Your task to perform on an android device: open app "Lyft - Rideshare, Bikes, Scooters & Transit" (install if not already installed), go to login, and select forgot password Image 0: 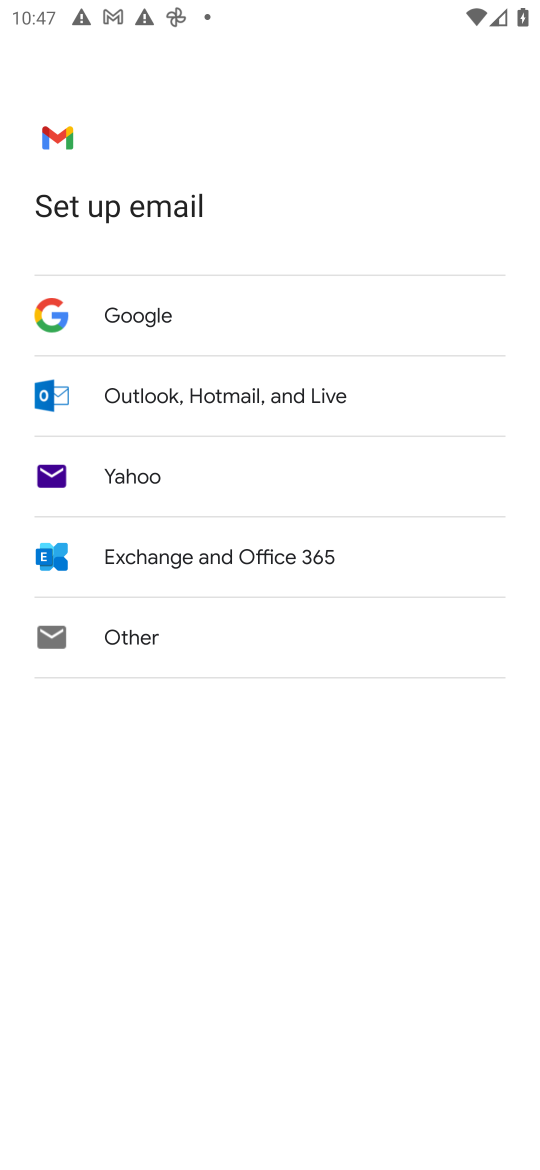
Step 0: press home button
Your task to perform on an android device: open app "Lyft - Rideshare, Bikes, Scooters & Transit" (install if not already installed), go to login, and select forgot password Image 1: 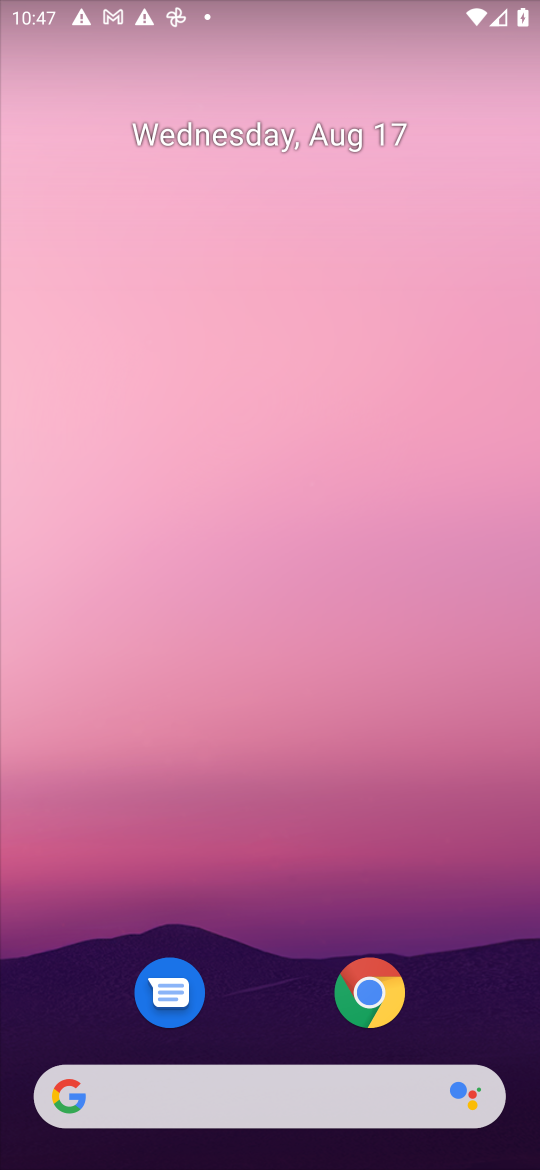
Step 1: drag from (463, 984) to (229, 75)
Your task to perform on an android device: open app "Lyft - Rideshare, Bikes, Scooters & Transit" (install if not already installed), go to login, and select forgot password Image 2: 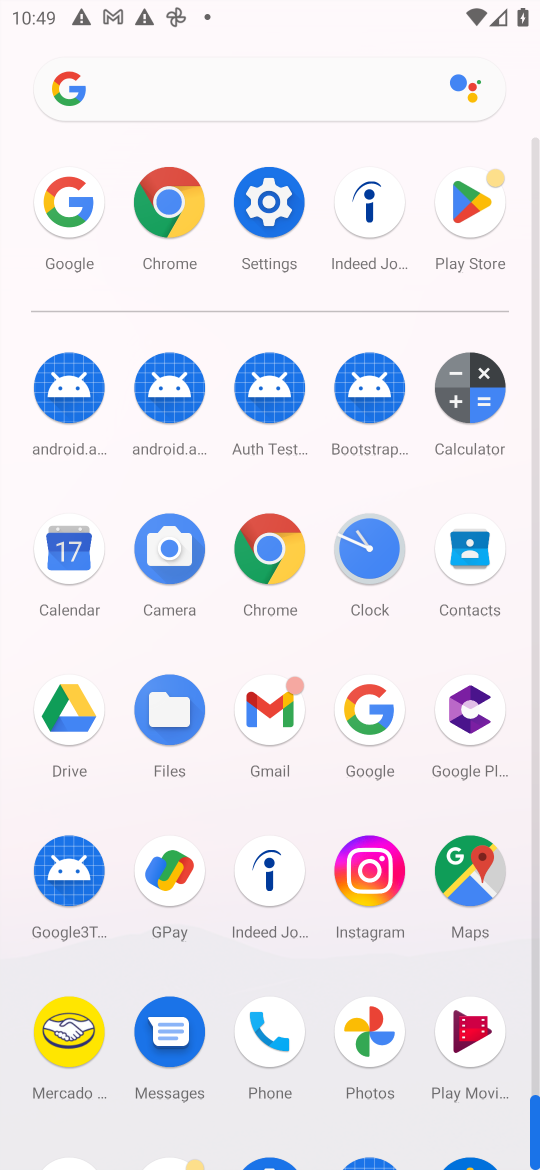
Step 2: click (474, 223)
Your task to perform on an android device: open app "Lyft - Rideshare, Bikes, Scooters & Transit" (install if not already installed), go to login, and select forgot password Image 3: 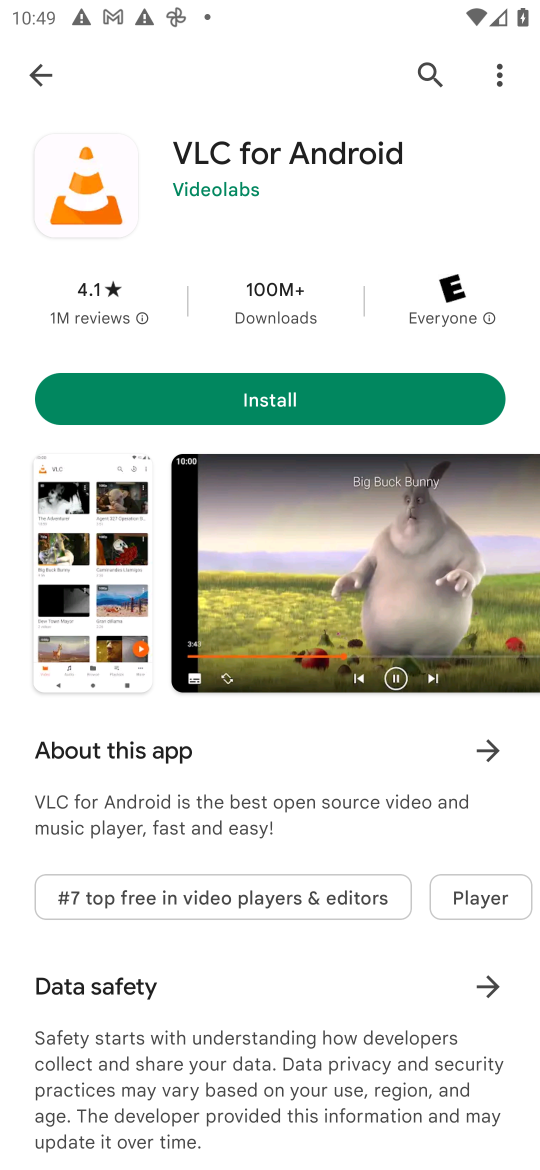
Step 3: press back button
Your task to perform on an android device: open app "Lyft - Rideshare, Bikes, Scooters & Transit" (install if not already installed), go to login, and select forgot password Image 4: 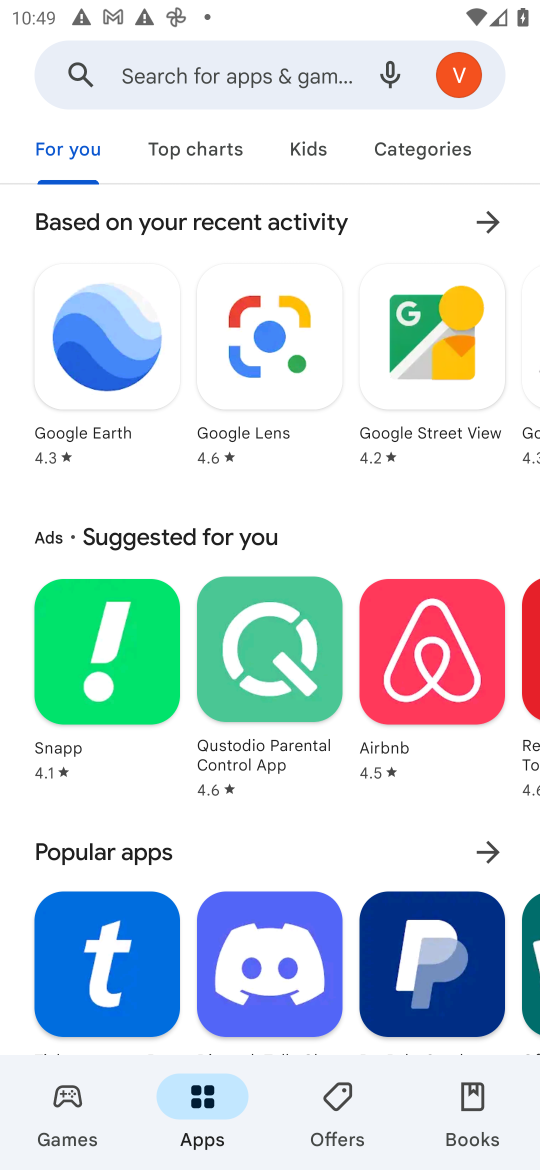
Step 4: click (189, 81)
Your task to perform on an android device: open app "Lyft - Rideshare, Bikes, Scooters & Transit" (install if not already installed), go to login, and select forgot password Image 5: 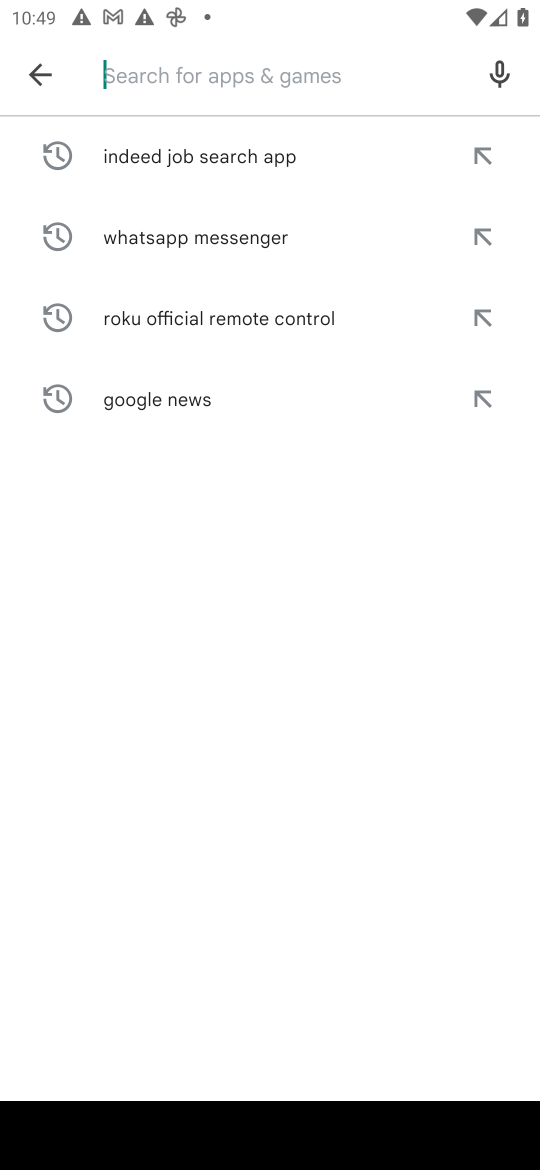
Step 5: type "Lyft - Rideshare, Bikes, Scooters & Transit"
Your task to perform on an android device: open app "Lyft - Rideshare, Bikes, Scooters & Transit" (install if not already installed), go to login, and select forgot password Image 6: 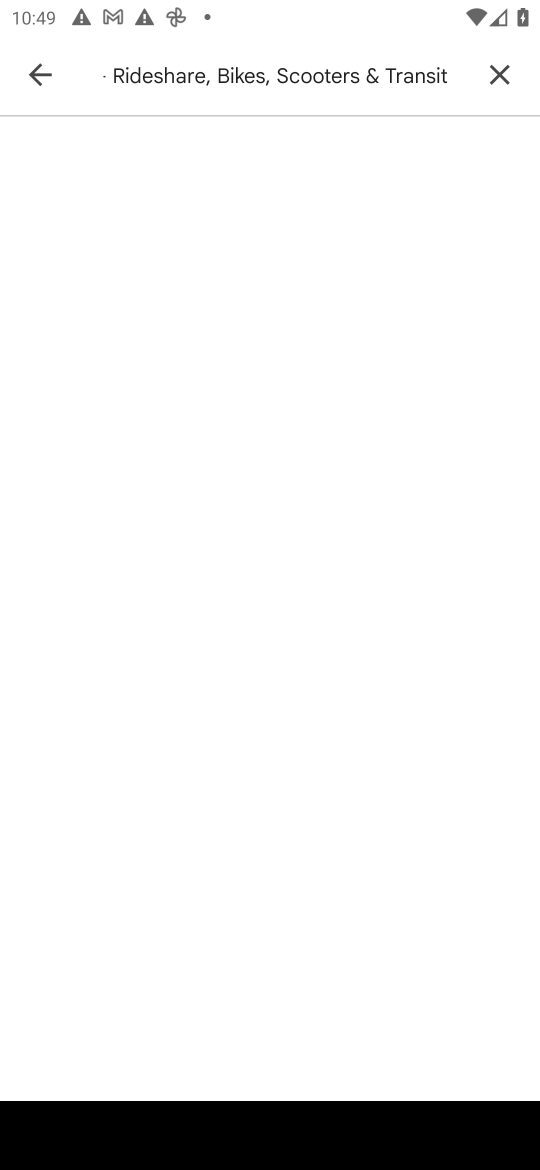
Step 6: task complete